Your task to perform on an android device: How much does a 2 bedroom apartment rent for in Chicago? Image 0: 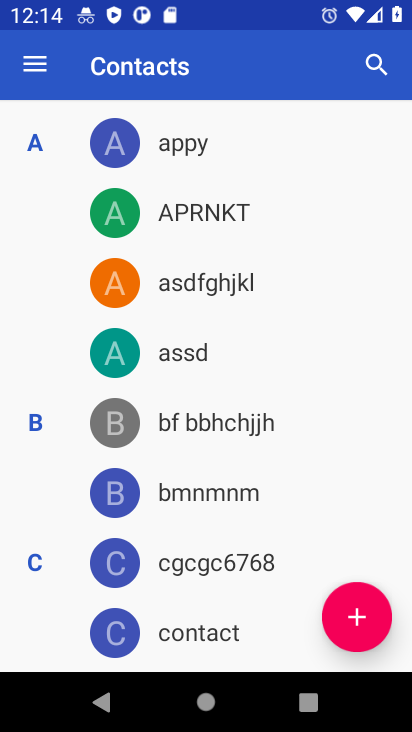
Step 0: press home button
Your task to perform on an android device: How much does a 2 bedroom apartment rent for in Chicago? Image 1: 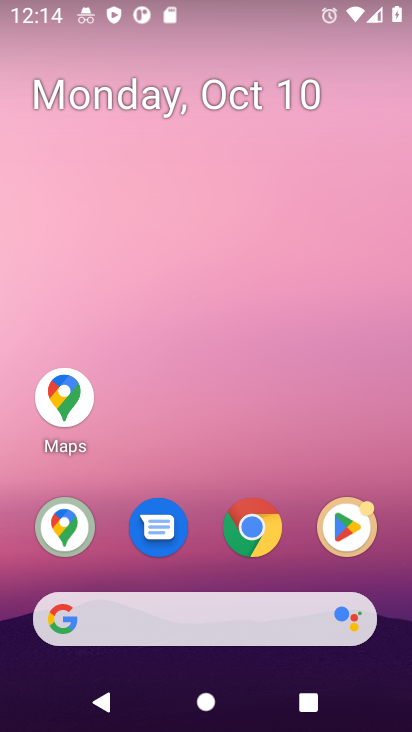
Step 1: click (242, 542)
Your task to perform on an android device: How much does a 2 bedroom apartment rent for in Chicago? Image 2: 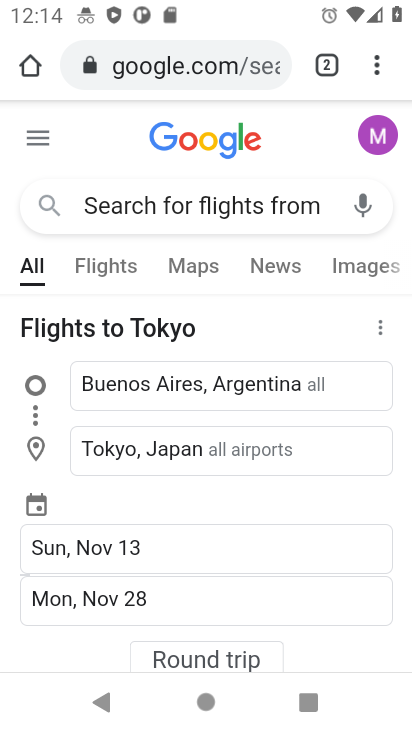
Step 2: click (241, 58)
Your task to perform on an android device: How much does a 2 bedroom apartment rent for in Chicago? Image 3: 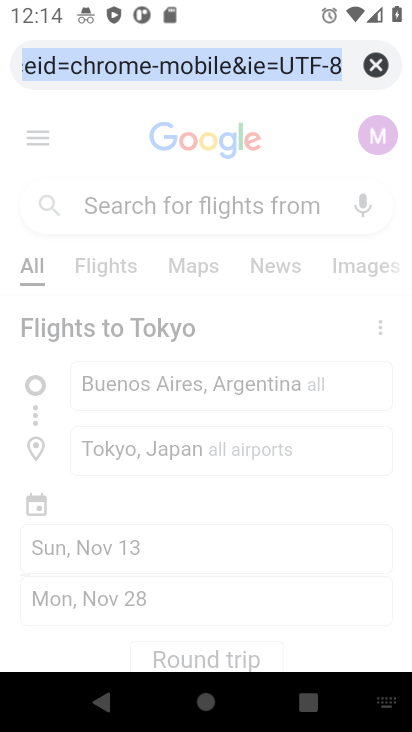
Step 3: type "How much does a 2 bedroom apartment rent for in Chicago?"
Your task to perform on an android device: How much does a 2 bedroom apartment rent for in Chicago? Image 4: 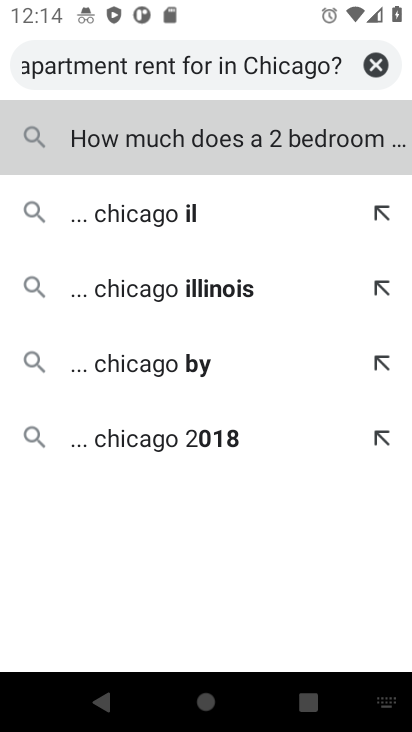
Step 4: click (266, 156)
Your task to perform on an android device: How much does a 2 bedroom apartment rent for in Chicago? Image 5: 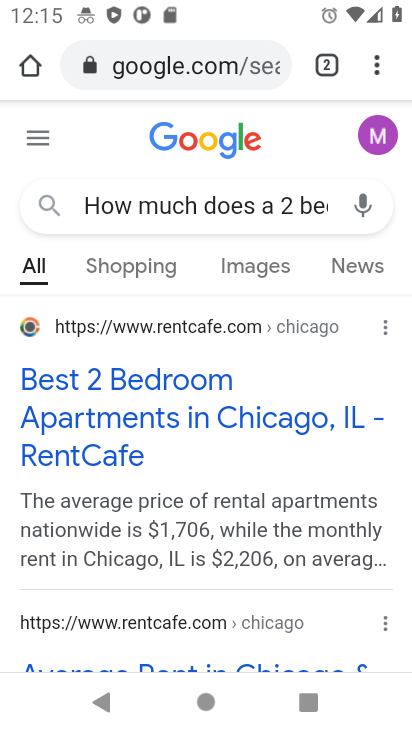
Step 5: click (173, 420)
Your task to perform on an android device: How much does a 2 bedroom apartment rent for in Chicago? Image 6: 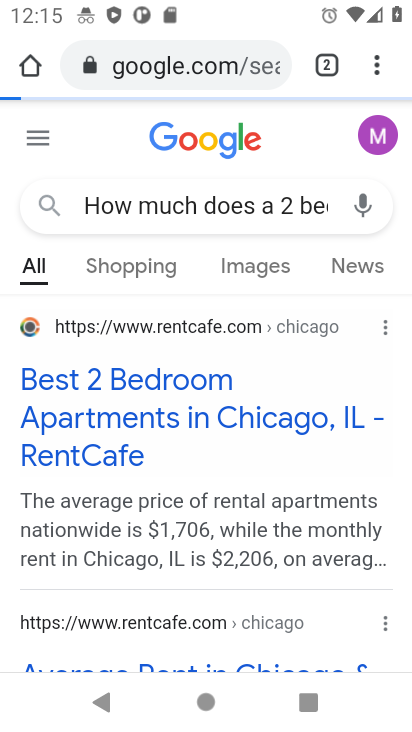
Step 6: click (173, 420)
Your task to perform on an android device: How much does a 2 bedroom apartment rent for in Chicago? Image 7: 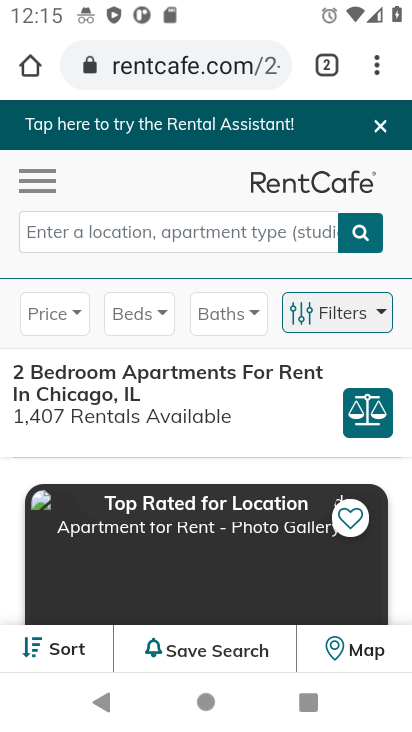
Step 7: click (173, 420)
Your task to perform on an android device: How much does a 2 bedroom apartment rent for in Chicago? Image 8: 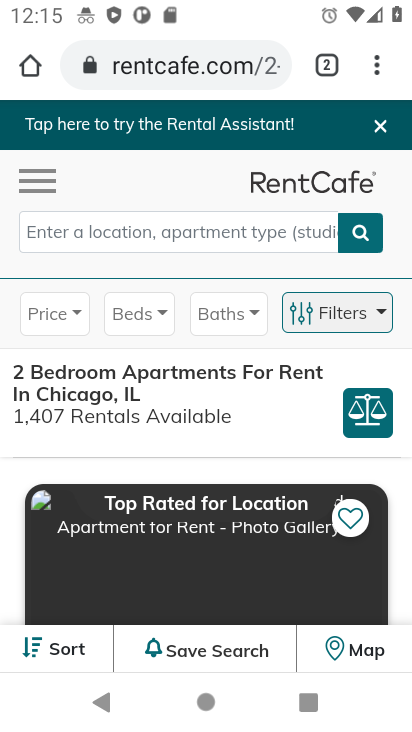
Step 8: click (173, 420)
Your task to perform on an android device: How much does a 2 bedroom apartment rent for in Chicago? Image 9: 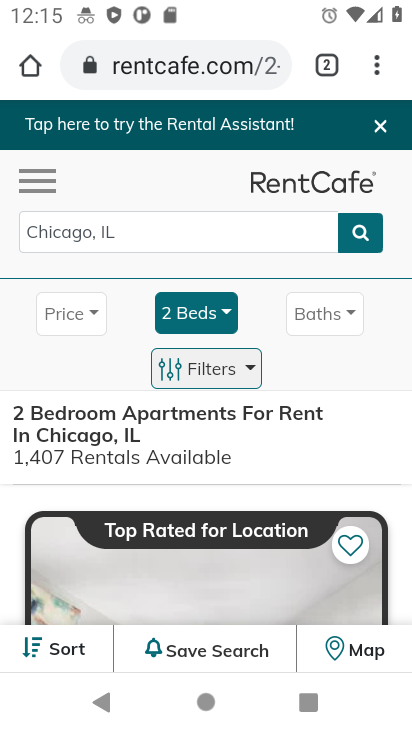
Step 9: task complete